Your task to perform on an android device: change keyboard looks Image 0: 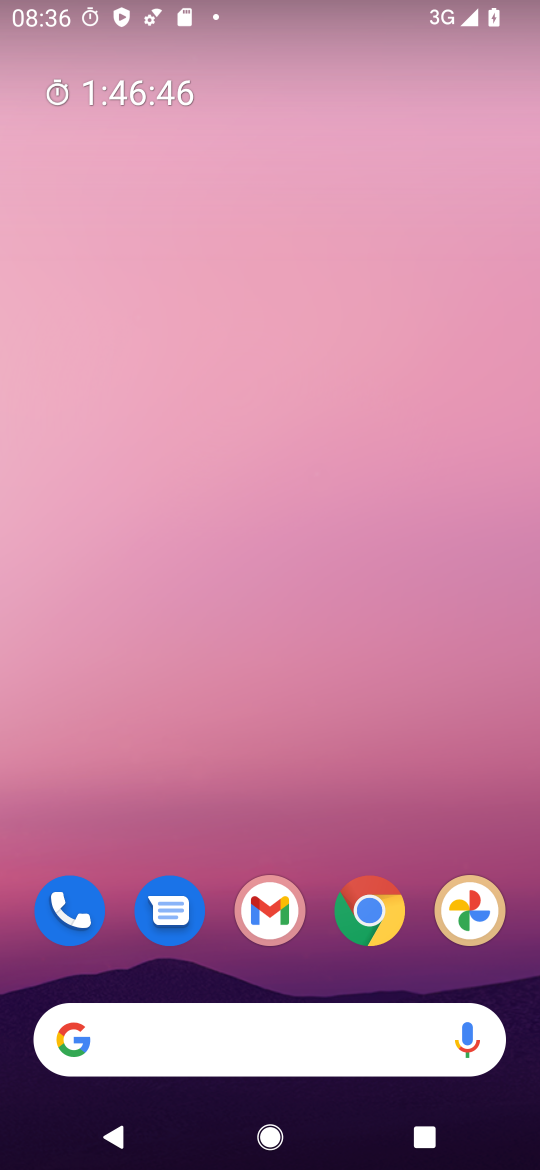
Step 0: drag from (259, 979) to (297, 6)
Your task to perform on an android device: change keyboard looks Image 1: 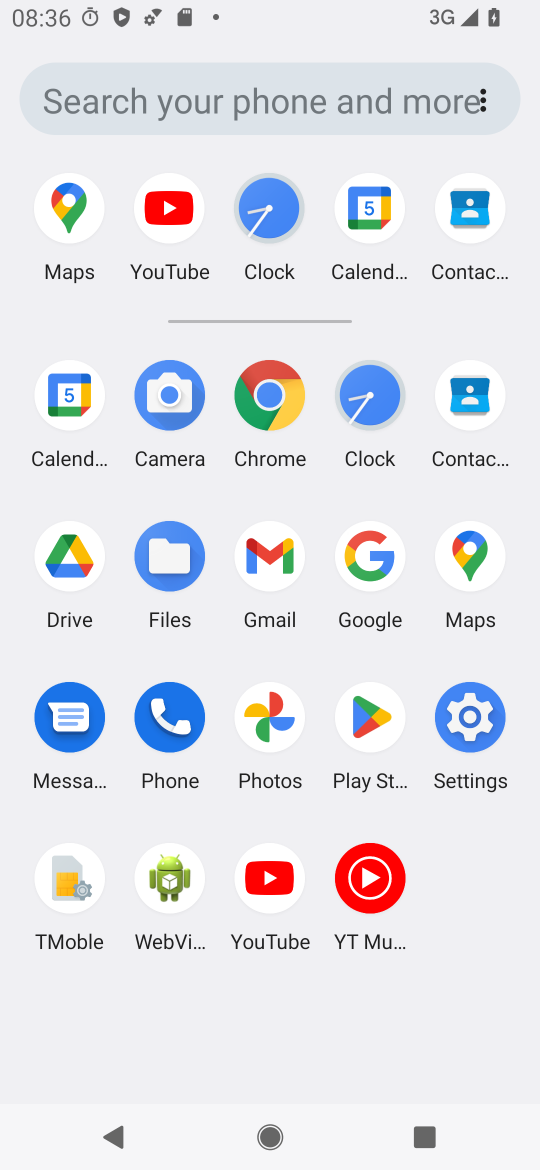
Step 1: click (478, 731)
Your task to perform on an android device: change keyboard looks Image 2: 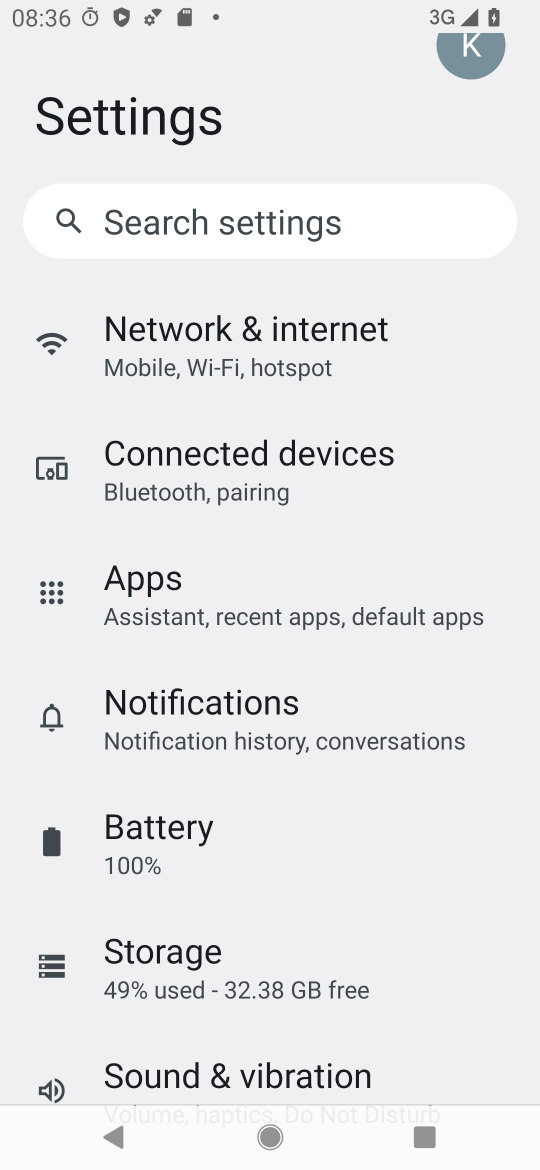
Step 2: drag from (424, 1000) to (365, 82)
Your task to perform on an android device: change keyboard looks Image 3: 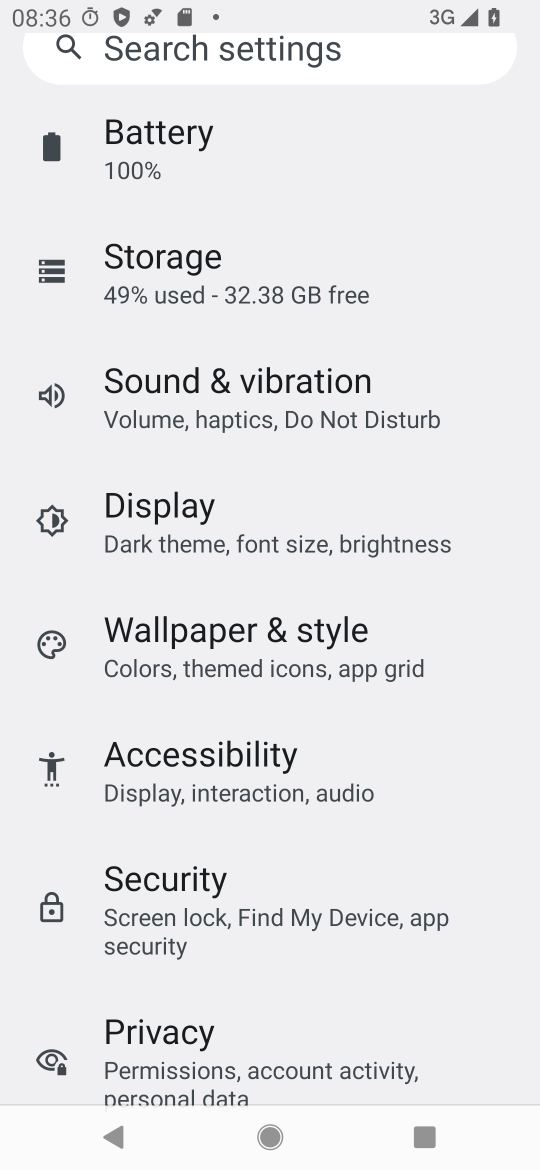
Step 3: drag from (454, 1042) to (442, 3)
Your task to perform on an android device: change keyboard looks Image 4: 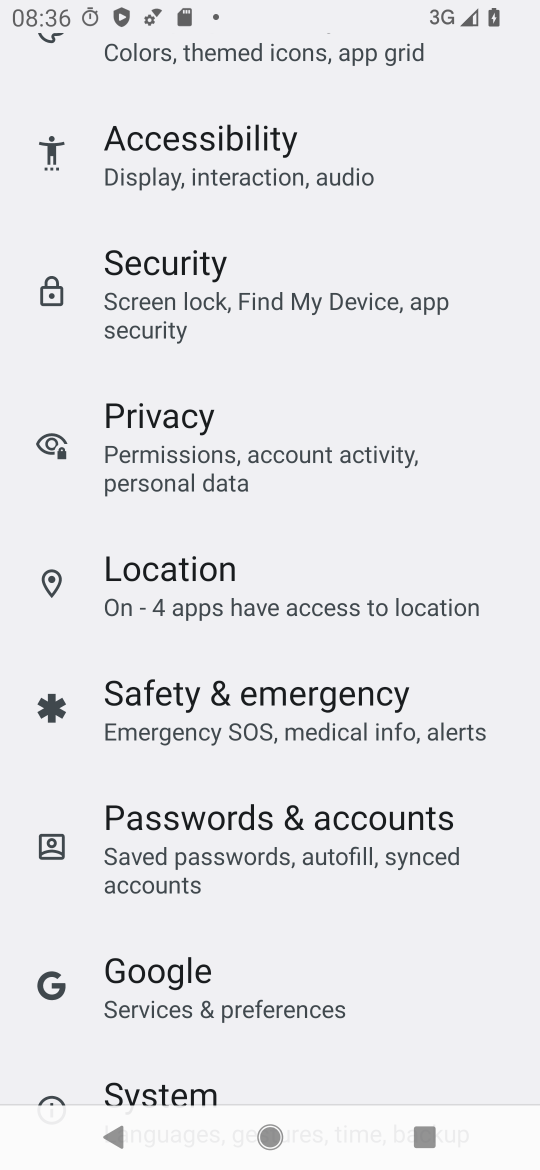
Step 4: drag from (444, 1059) to (491, 7)
Your task to perform on an android device: change keyboard looks Image 5: 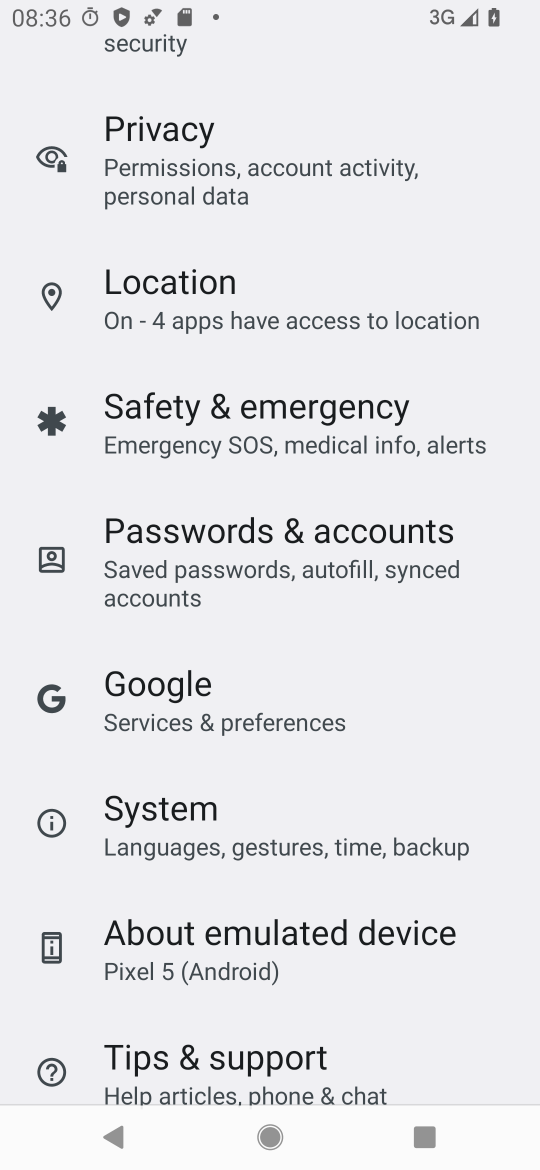
Step 5: click (197, 836)
Your task to perform on an android device: change keyboard looks Image 6: 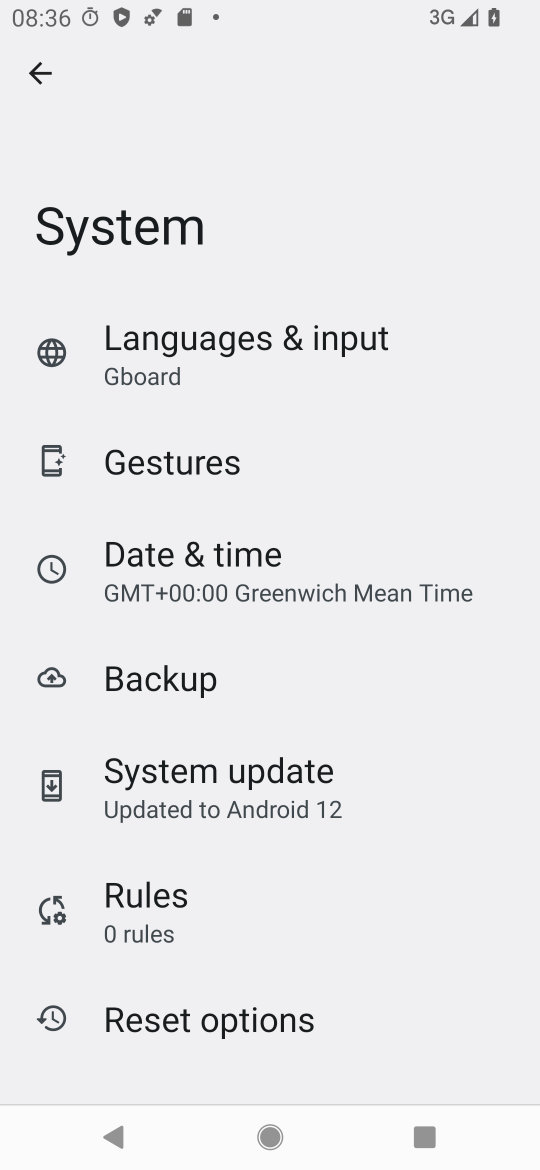
Step 6: click (261, 351)
Your task to perform on an android device: change keyboard looks Image 7: 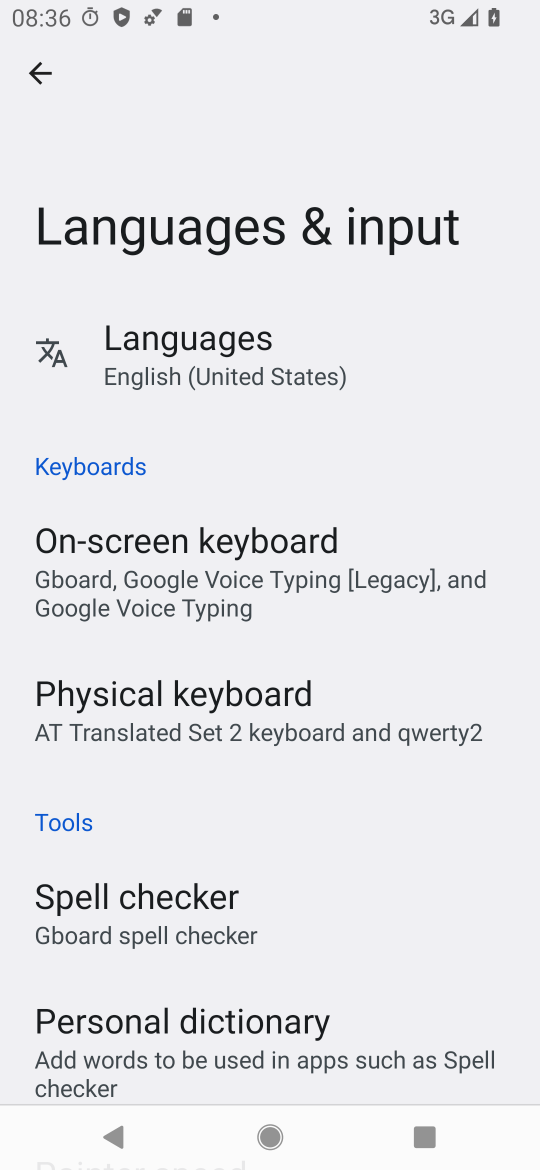
Step 7: click (211, 704)
Your task to perform on an android device: change keyboard looks Image 8: 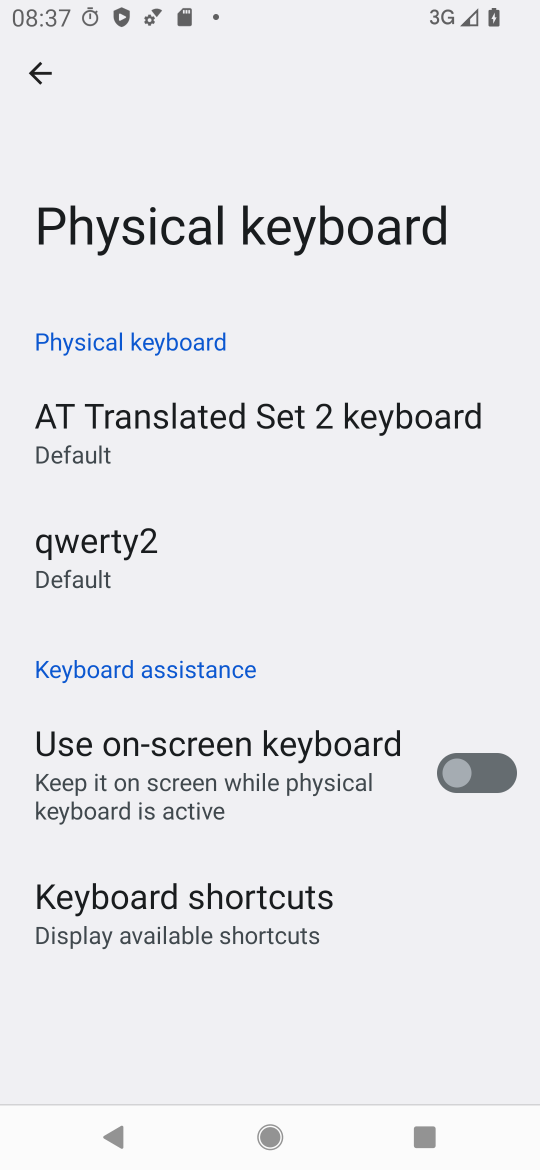
Step 8: press back button
Your task to perform on an android device: change keyboard looks Image 9: 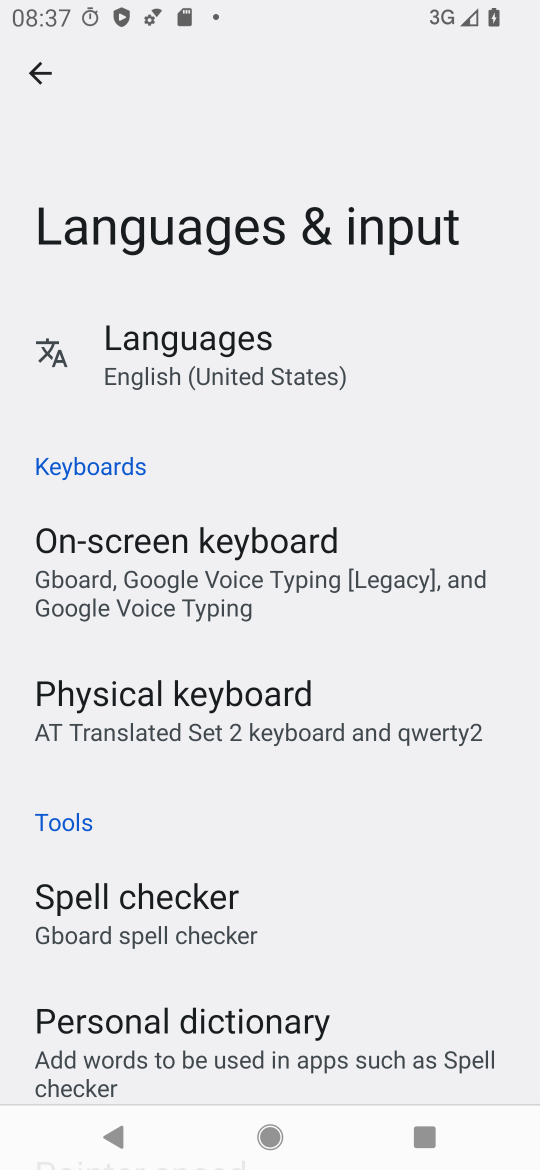
Step 9: drag from (439, 996) to (533, 155)
Your task to perform on an android device: change keyboard looks Image 10: 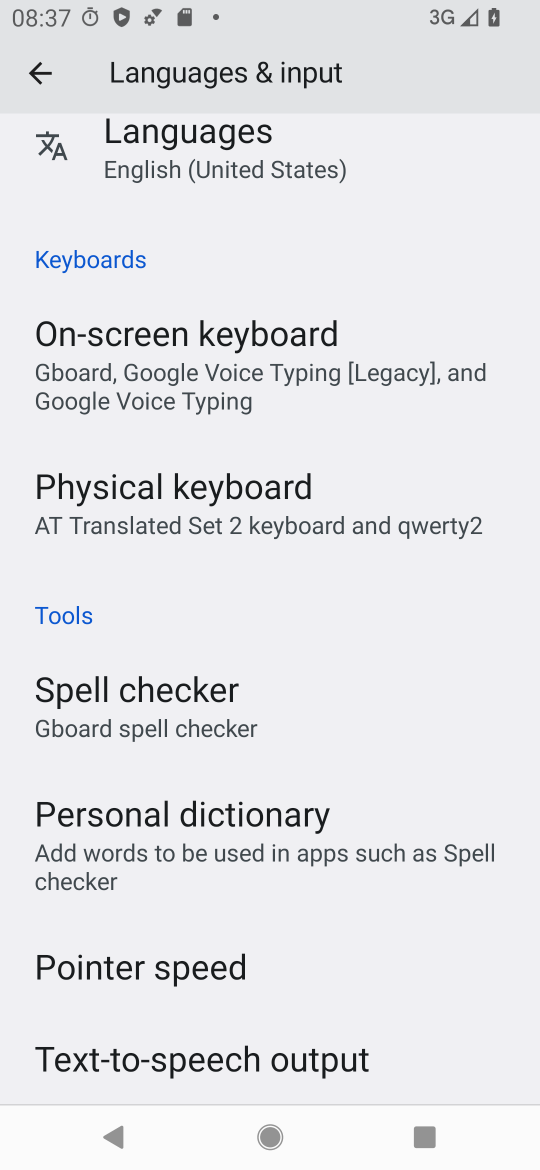
Step 10: click (182, 373)
Your task to perform on an android device: change keyboard looks Image 11: 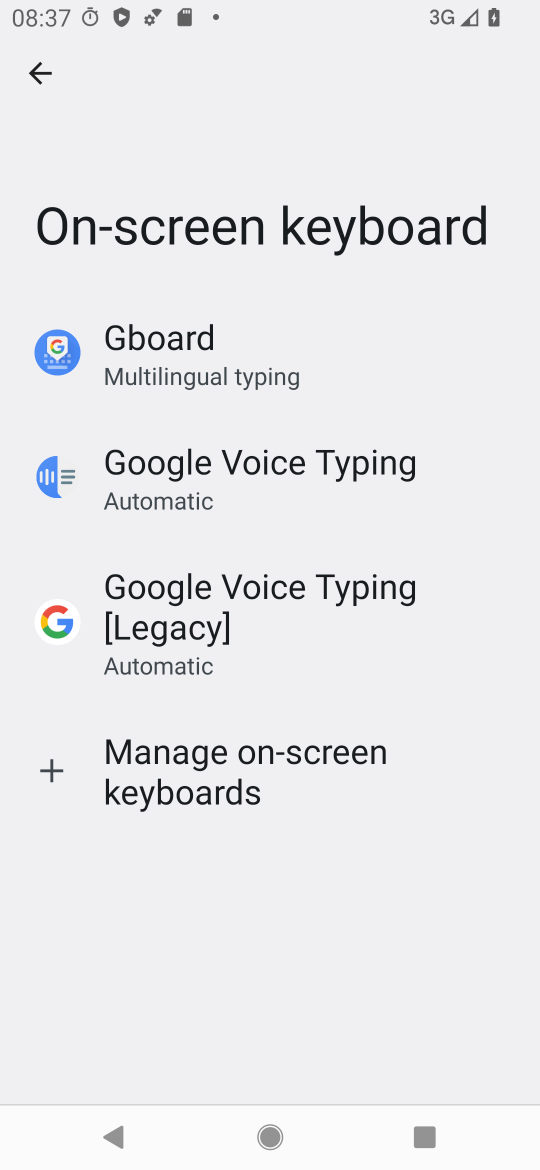
Step 11: click (182, 373)
Your task to perform on an android device: change keyboard looks Image 12: 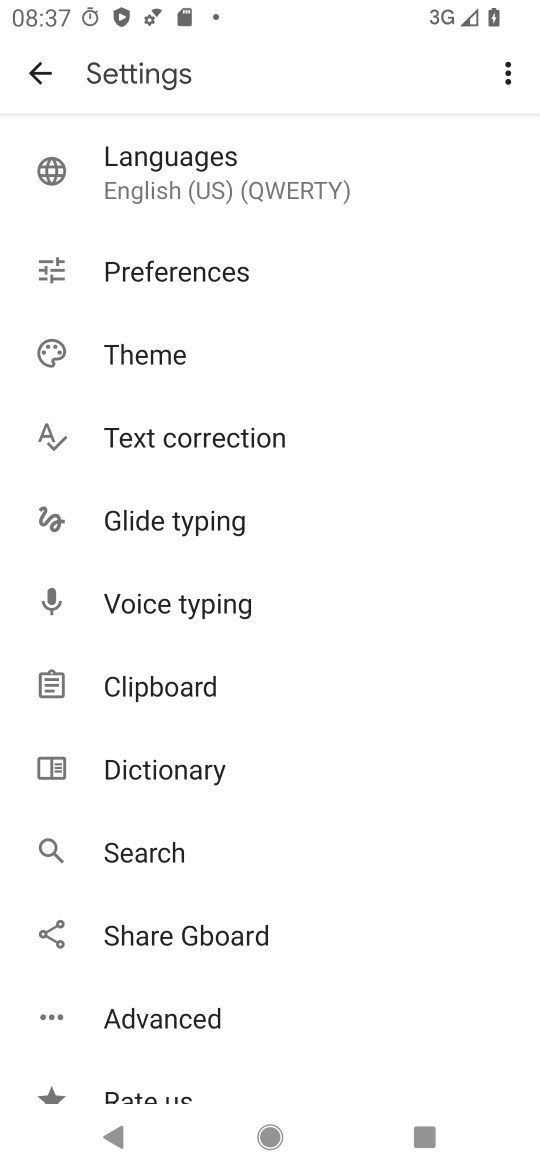
Step 12: click (137, 354)
Your task to perform on an android device: change keyboard looks Image 13: 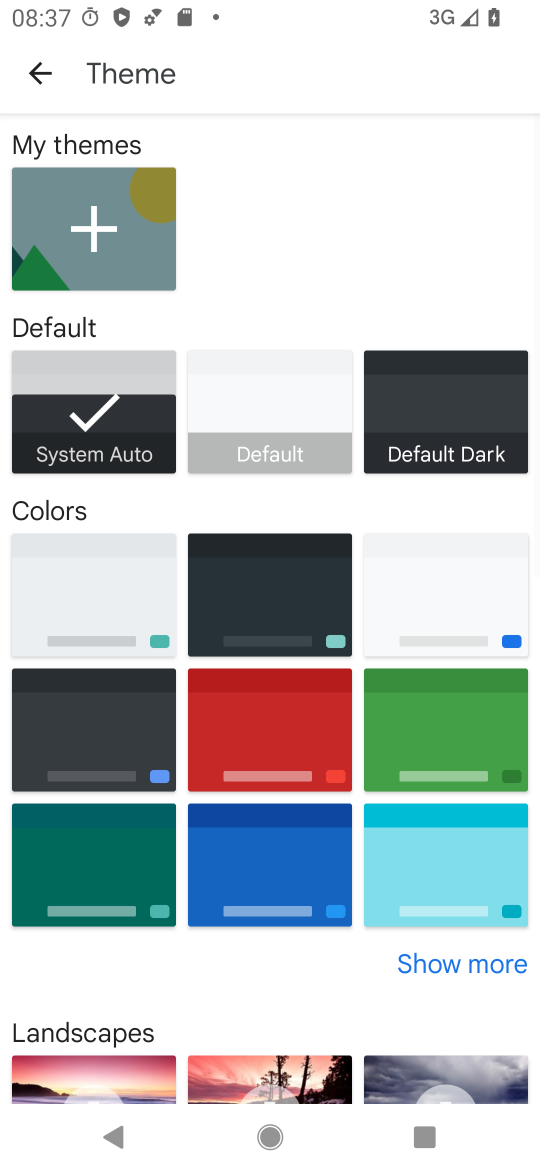
Step 13: click (283, 711)
Your task to perform on an android device: change keyboard looks Image 14: 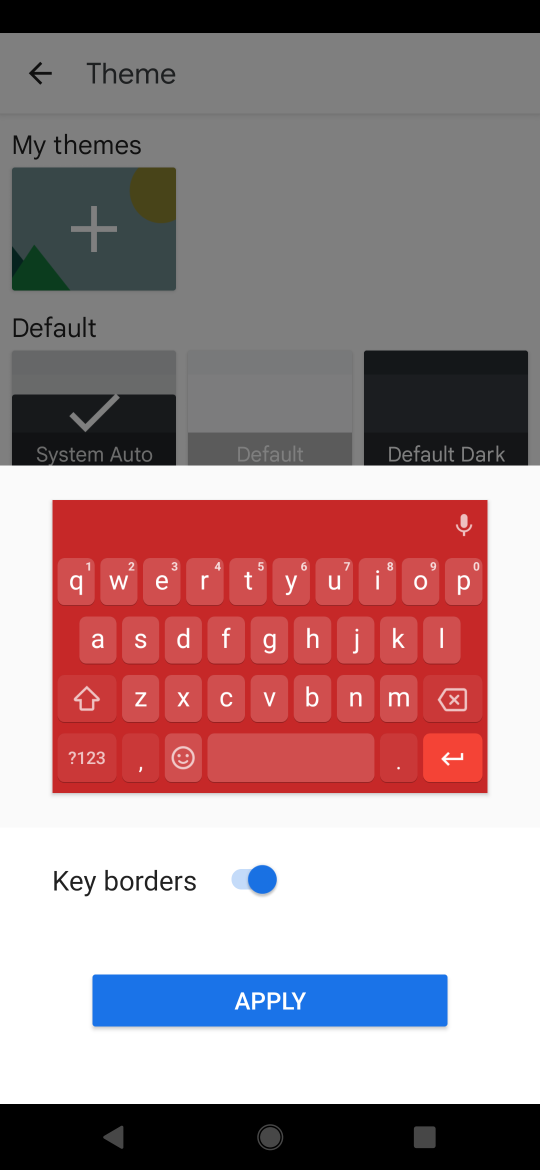
Step 14: click (239, 989)
Your task to perform on an android device: change keyboard looks Image 15: 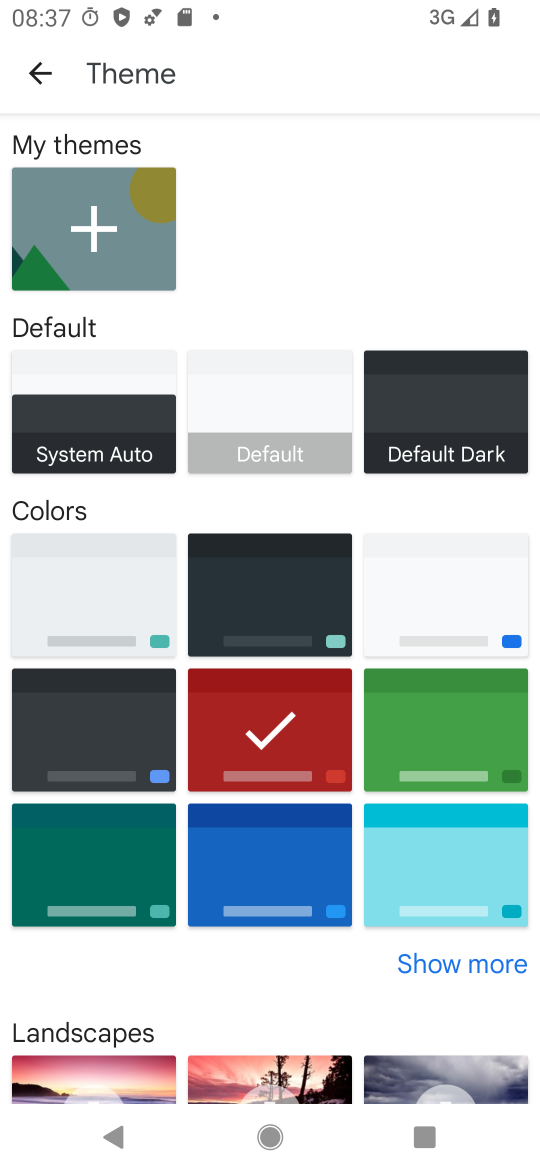
Step 15: task complete